Your task to perform on an android device: open app "Pandora - Music & Podcasts" (install if not already installed) and enter user name: "creator@yahoo.com" and password: "valuable" Image 0: 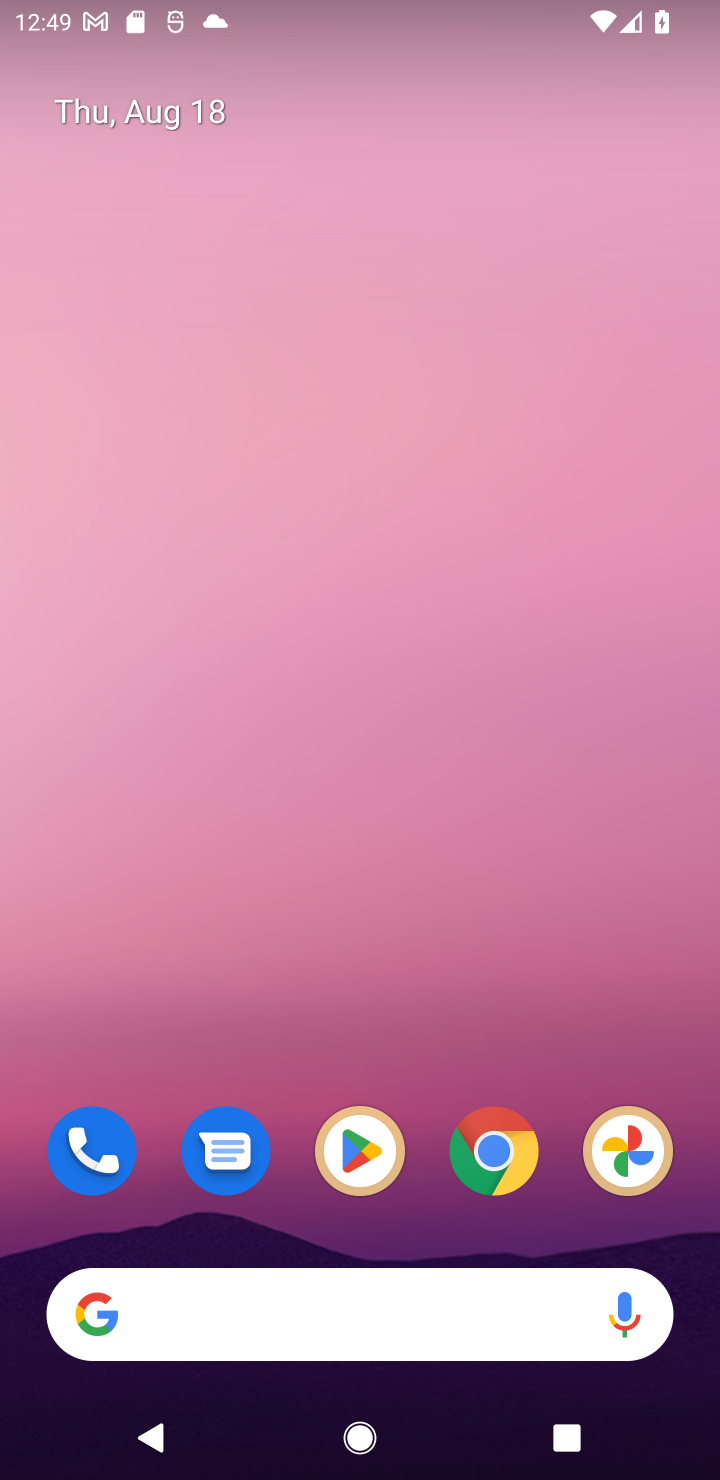
Step 0: click (363, 1154)
Your task to perform on an android device: open app "Pandora - Music & Podcasts" (install if not already installed) and enter user name: "creator@yahoo.com" and password: "valuable" Image 1: 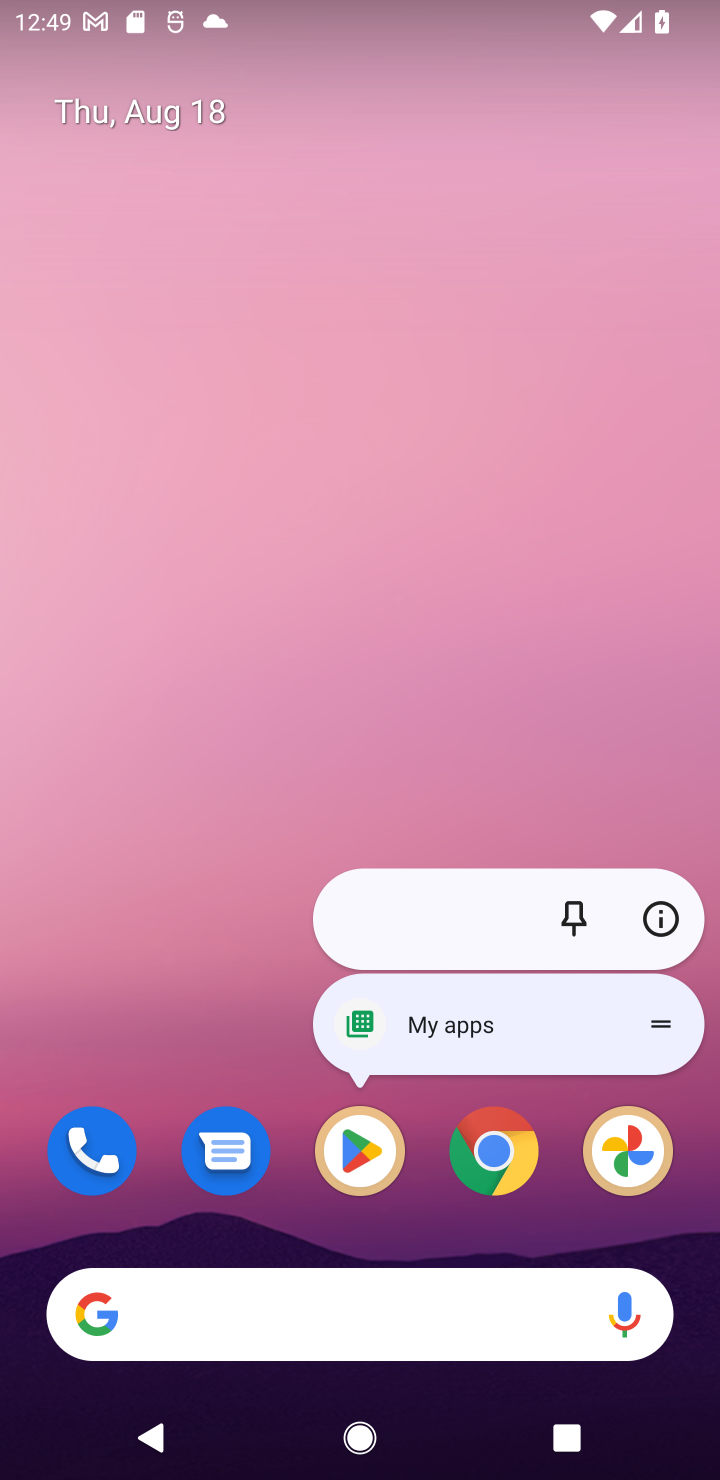
Step 1: click (346, 1154)
Your task to perform on an android device: open app "Pandora - Music & Podcasts" (install if not already installed) and enter user name: "creator@yahoo.com" and password: "valuable" Image 2: 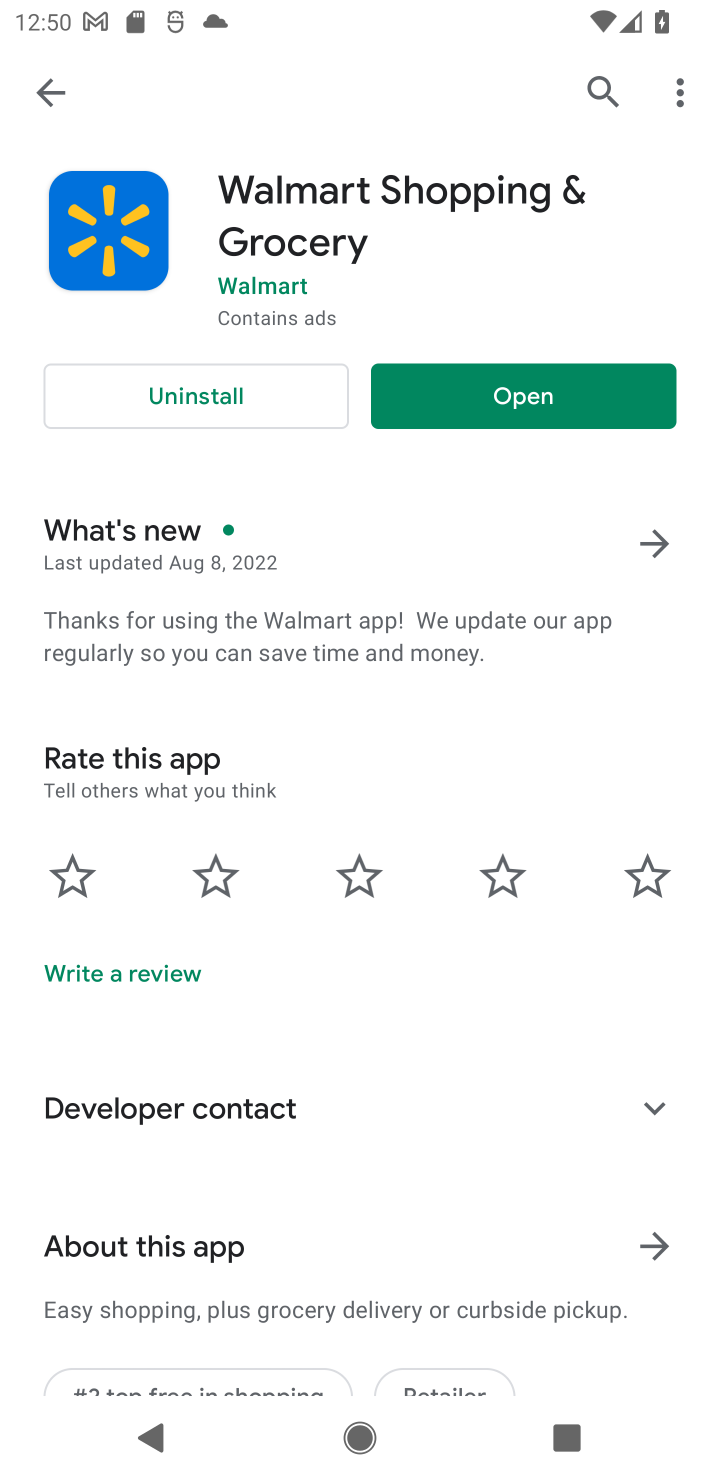
Step 2: click (69, 76)
Your task to perform on an android device: open app "Pandora - Music & Podcasts" (install if not already installed) and enter user name: "creator@yahoo.com" and password: "valuable" Image 3: 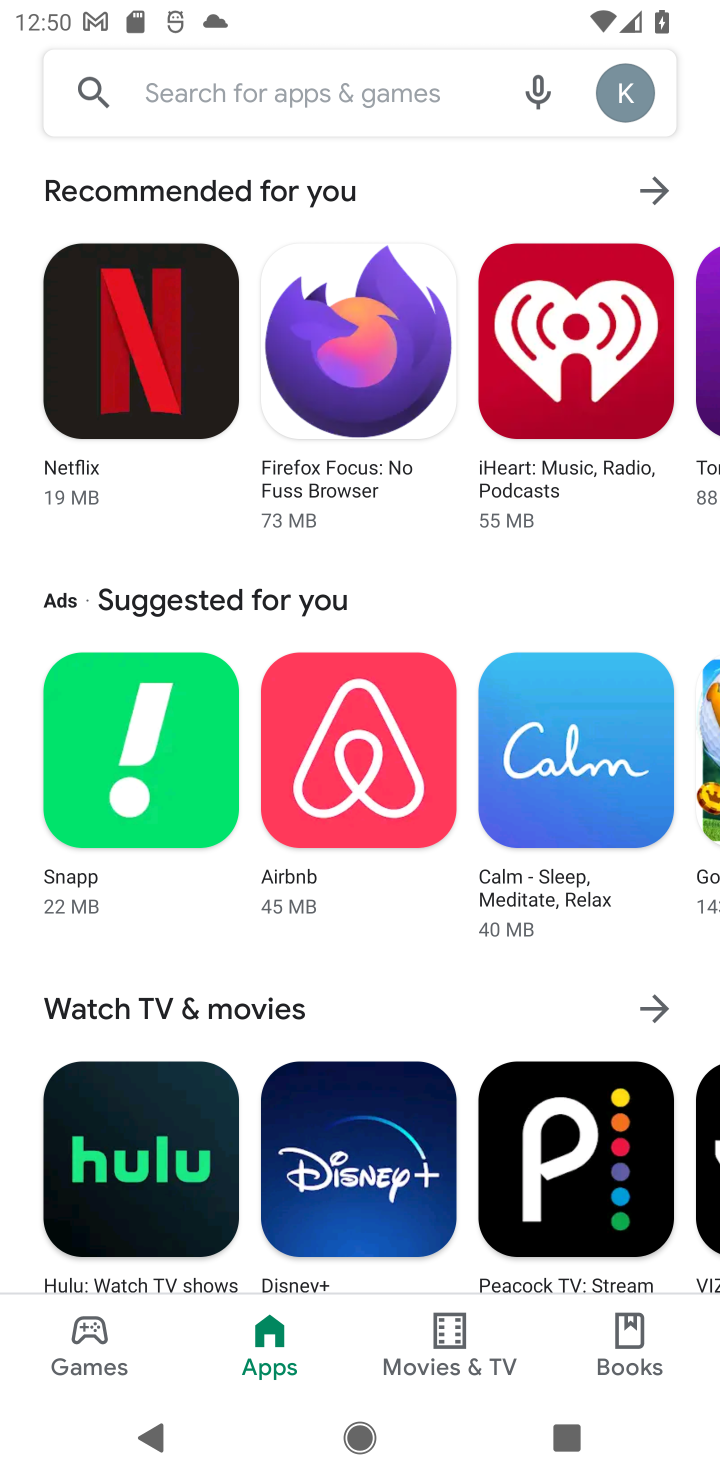
Step 3: click (248, 61)
Your task to perform on an android device: open app "Pandora - Music & Podcasts" (install if not already installed) and enter user name: "creator@yahoo.com" and password: "valuable" Image 4: 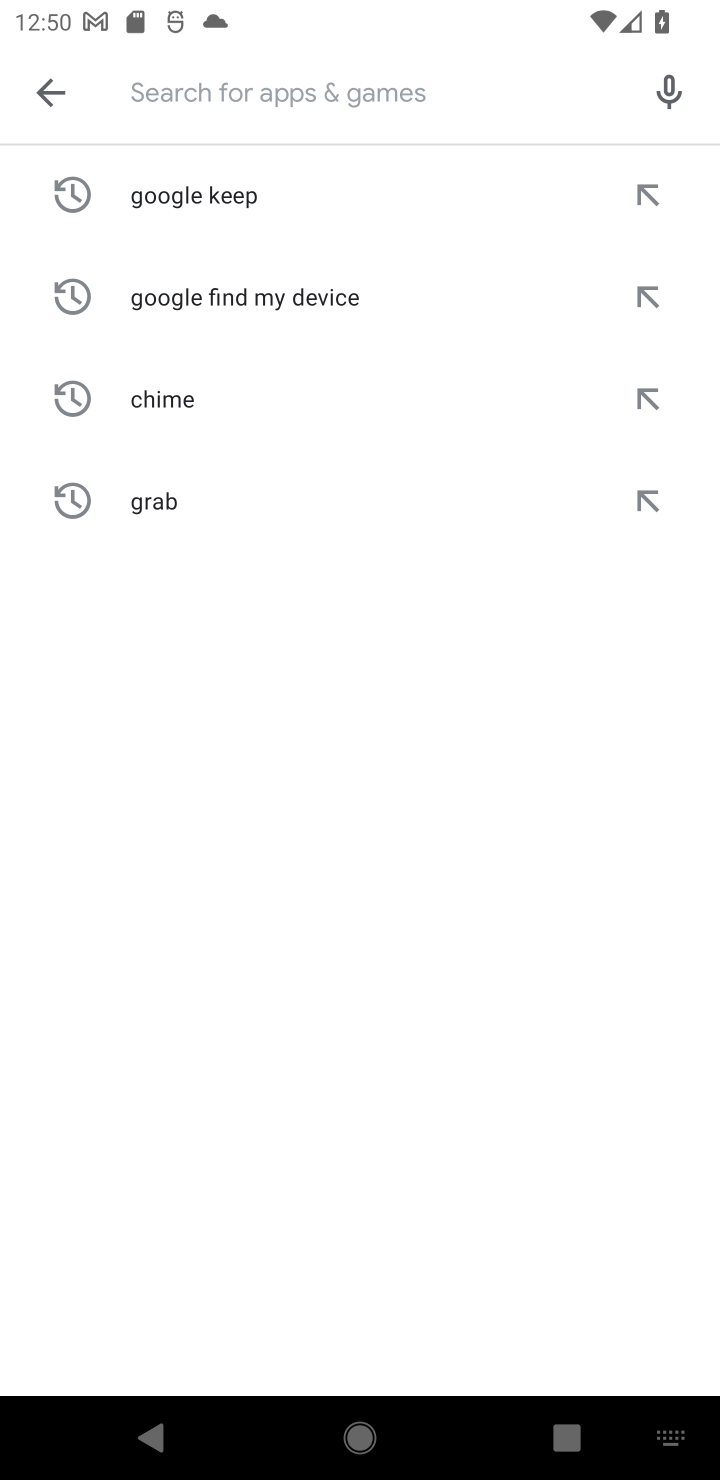
Step 4: type "Pandora - Music & Podcasts"
Your task to perform on an android device: open app "Pandora - Music & Podcasts" (install if not already installed) and enter user name: "creator@yahoo.com" and password: "valuable" Image 5: 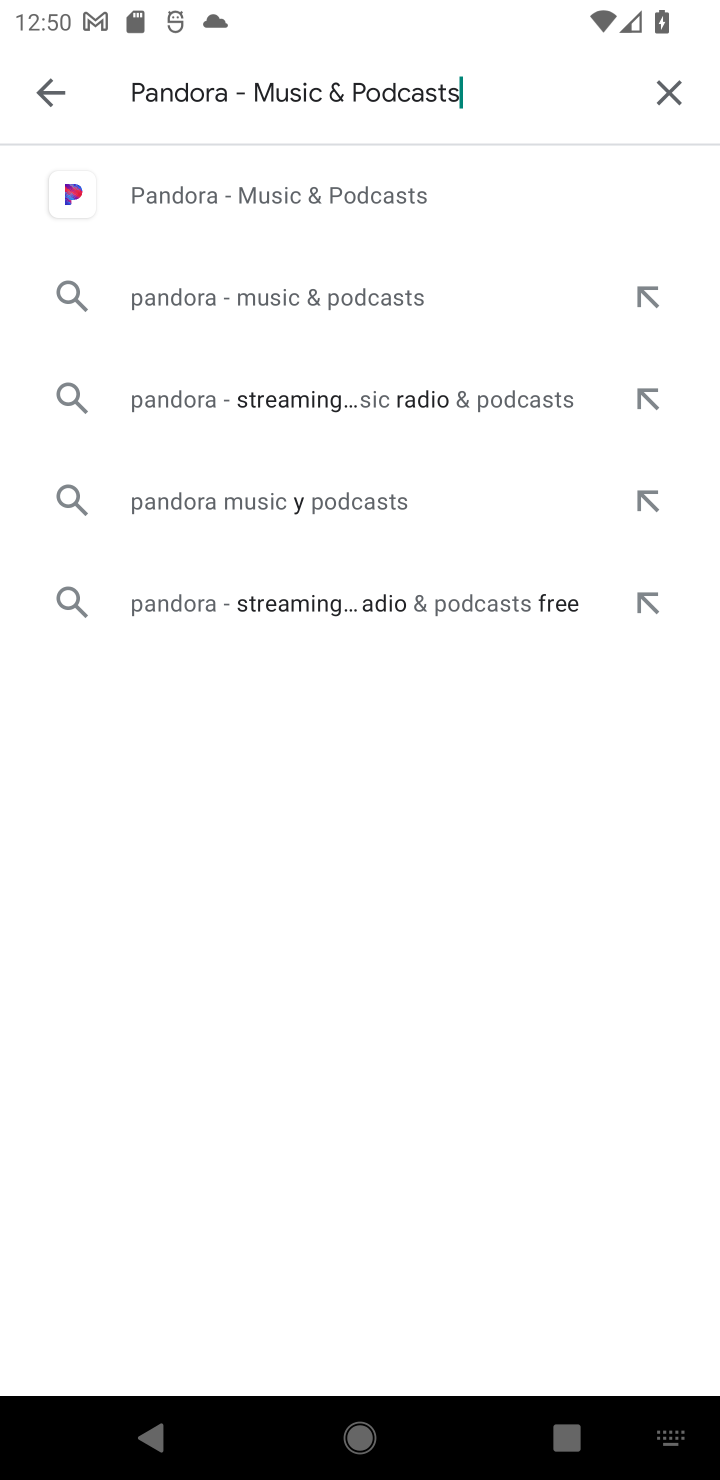
Step 5: click (227, 203)
Your task to perform on an android device: open app "Pandora - Music & Podcasts" (install if not already installed) and enter user name: "creator@yahoo.com" and password: "valuable" Image 6: 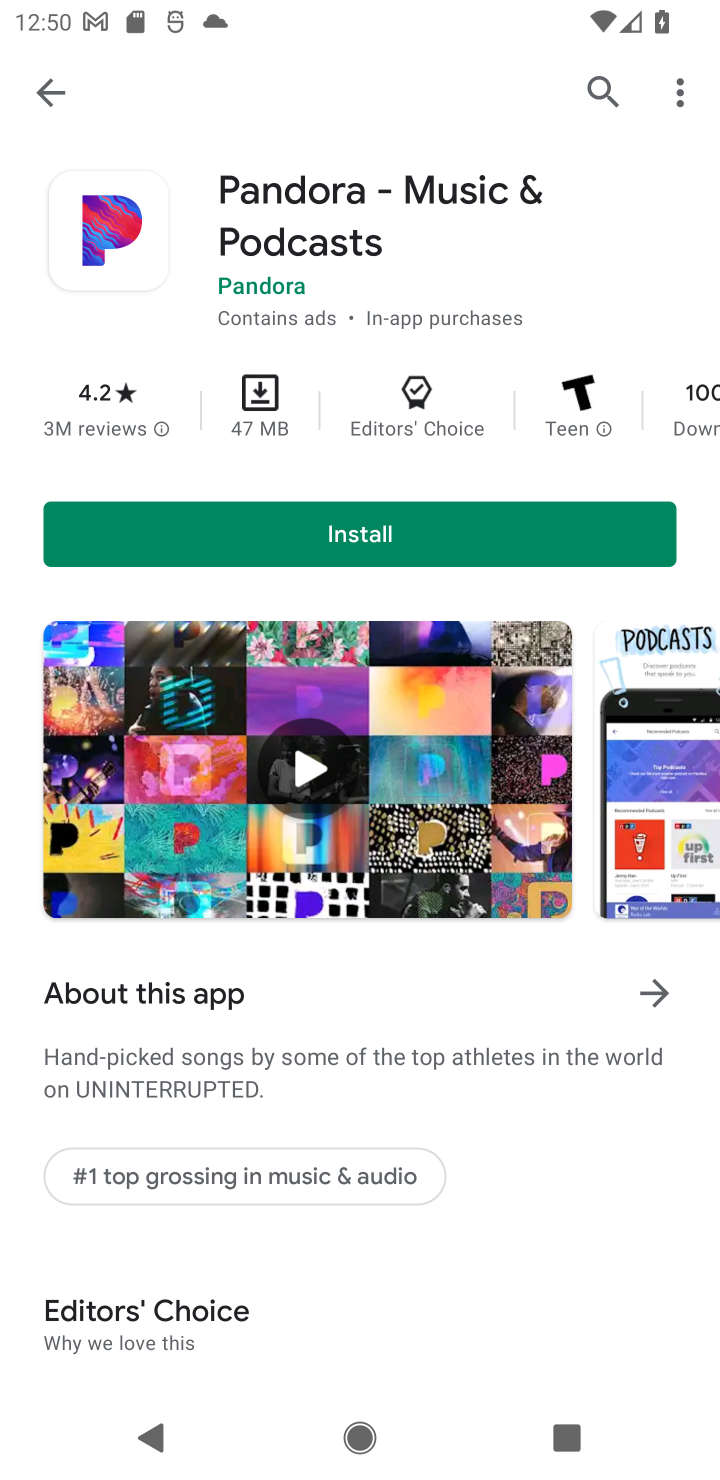
Step 6: click (380, 519)
Your task to perform on an android device: open app "Pandora - Music & Podcasts" (install if not already installed) and enter user name: "creator@yahoo.com" and password: "valuable" Image 7: 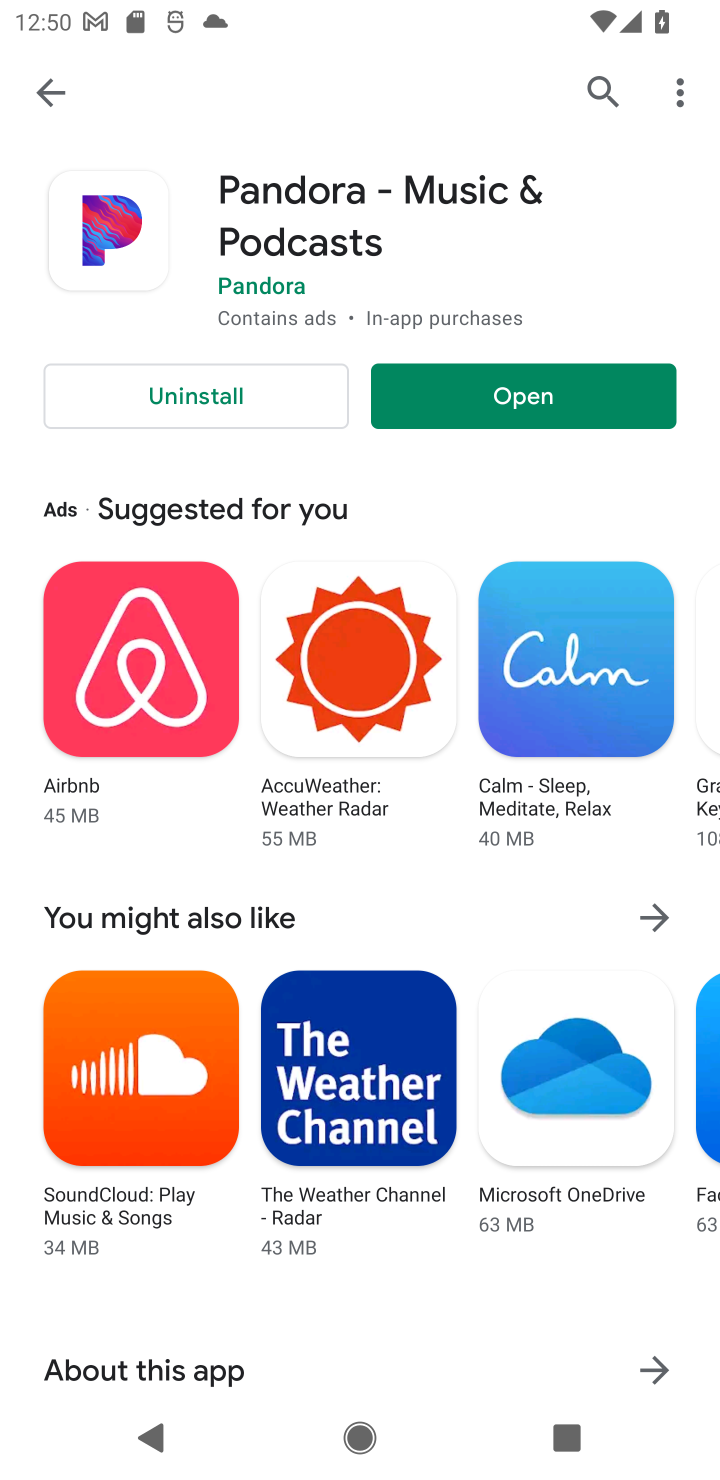
Step 7: click (509, 385)
Your task to perform on an android device: open app "Pandora - Music & Podcasts" (install if not already installed) and enter user name: "creator@yahoo.com" and password: "valuable" Image 8: 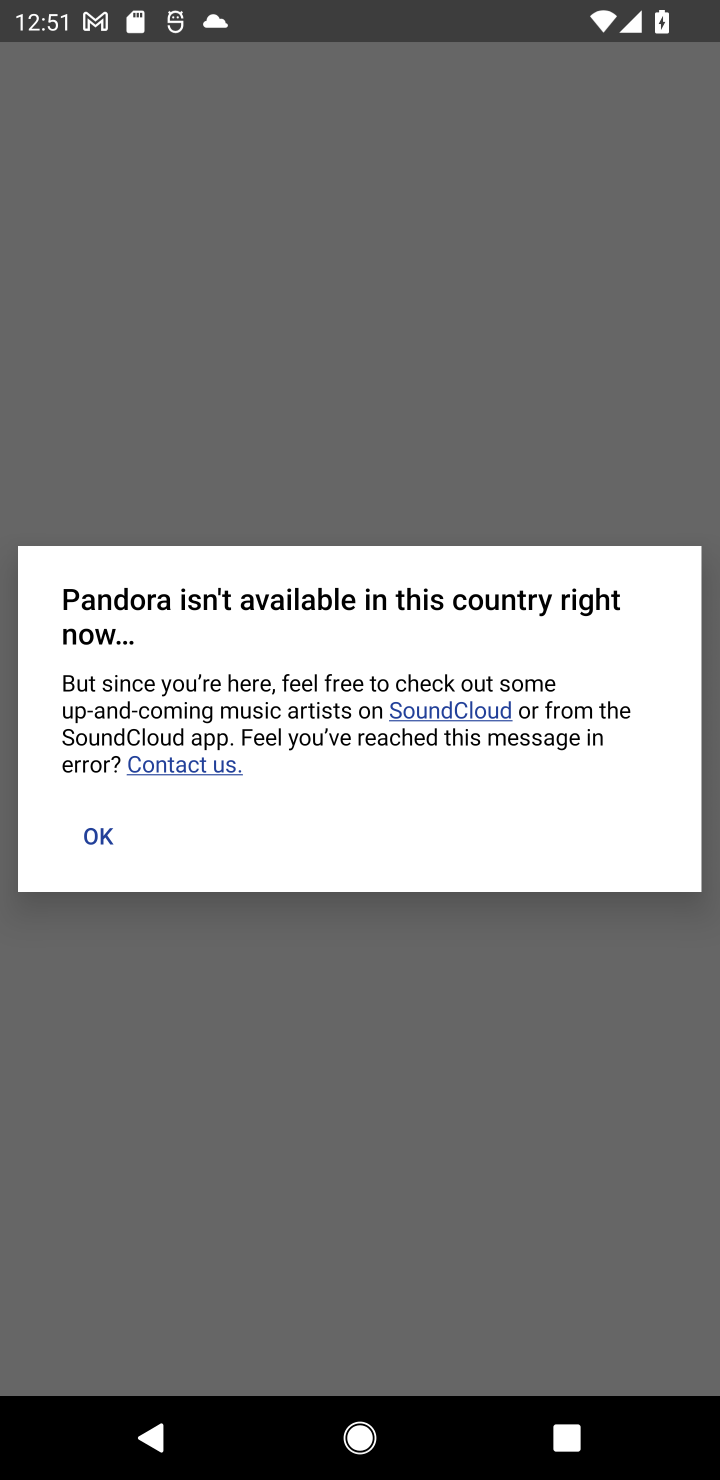
Step 8: task complete